Your task to perform on an android device: Open Yahoo.com Image 0: 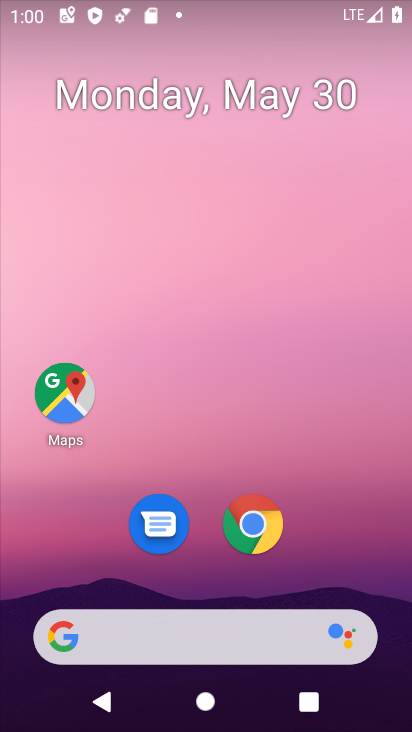
Step 0: click (239, 648)
Your task to perform on an android device: Open Yahoo.com Image 1: 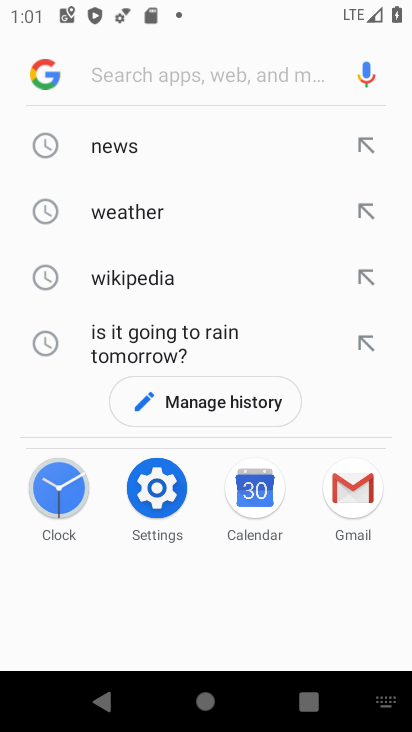
Step 1: type "yahoo.com"
Your task to perform on an android device: Open Yahoo.com Image 2: 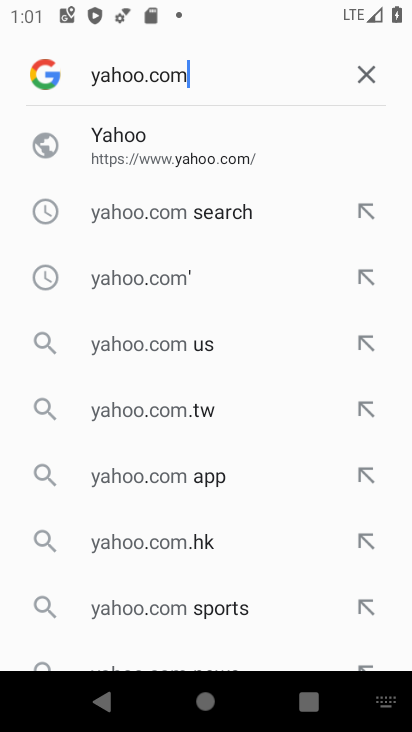
Step 2: click (137, 152)
Your task to perform on an android device: Open Yahoo.com Image 3: 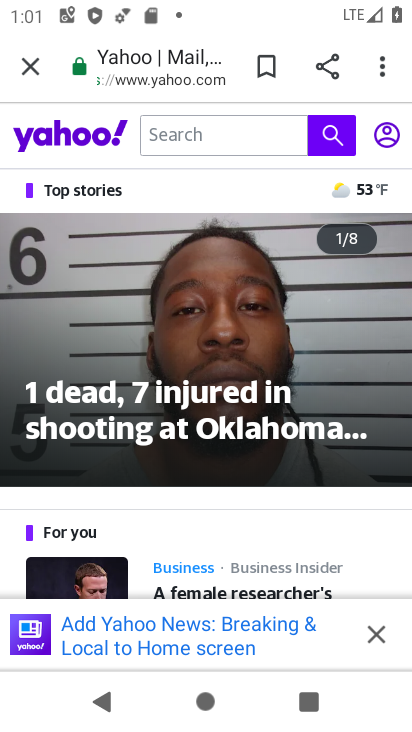
Step 3: press home button
Your task to perform on an android device: Open Yahoo.com Image 4: 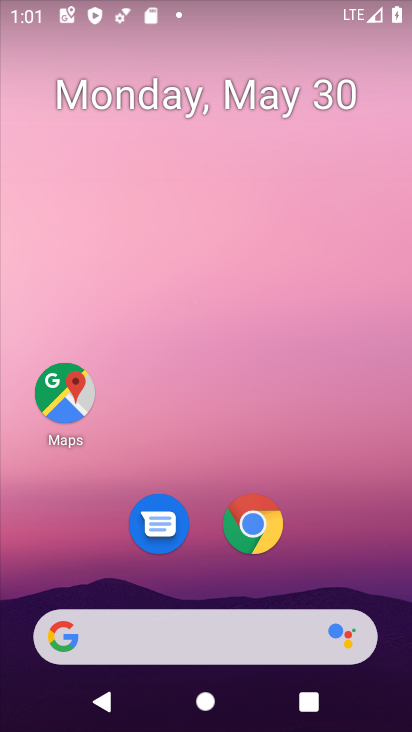
Step 4: click (273, 641)
Your task to perform on an android device: Open Yahoo.com Image 5: 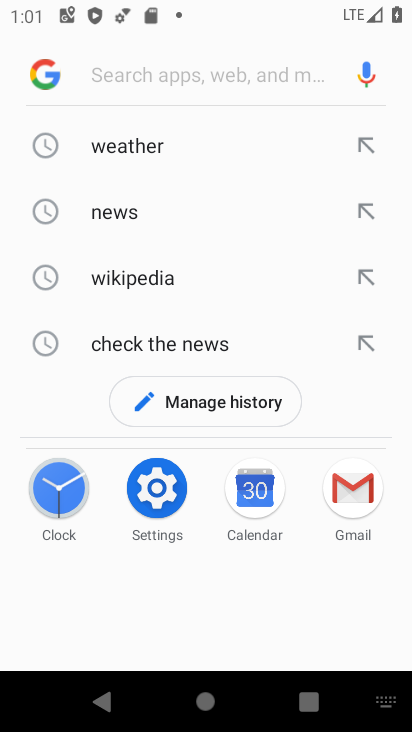
Step 5: type "yahoo.com"
Your task to perform on an android device: Open Yahoo.com Image 6: 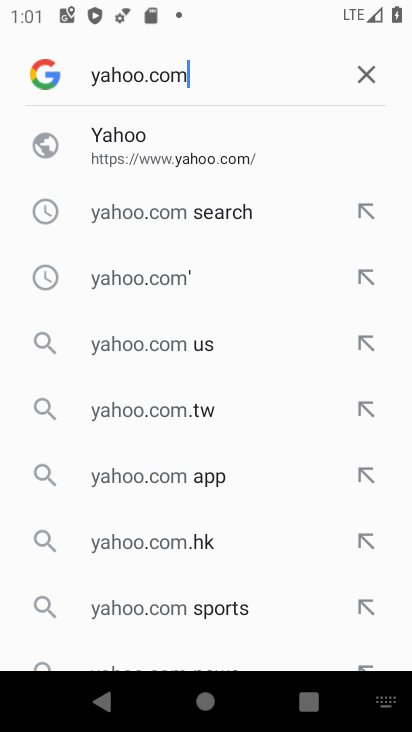
Step 6: click (134, 145)
Your task to perform on an android device: Open Yahoo.com Image 7: 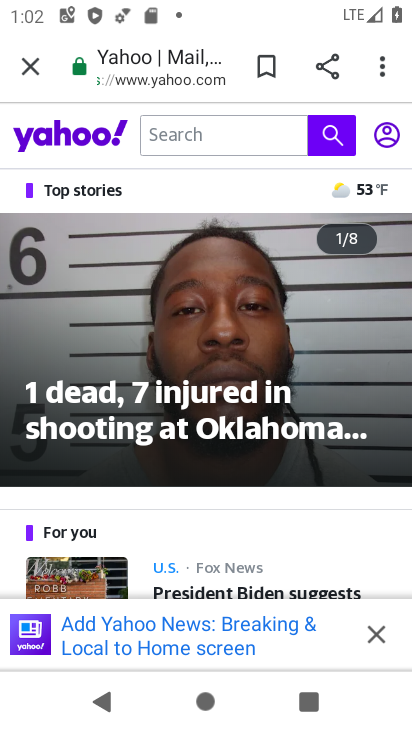
Step 7: task complete